Your task to perform on an android device: Search for acer predator on walmart.com, select the first entry, and add it to the cart. Image 0: 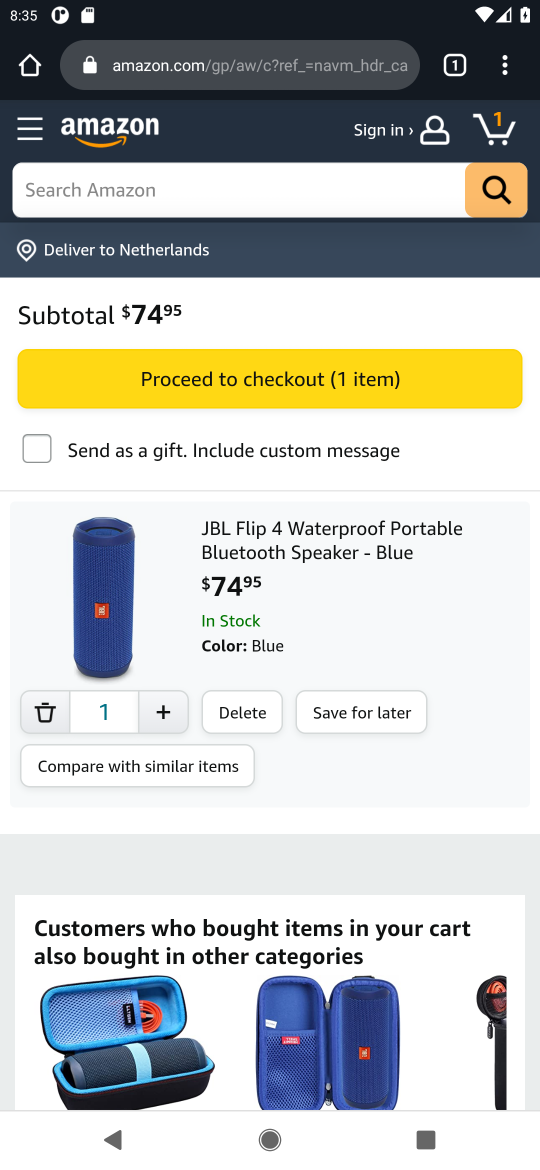
Step 0: click (220, 76)
Your task to perform on an android device: Search for acer predator on walmart.com, select the first entry, and add it to the cart. Image 1: 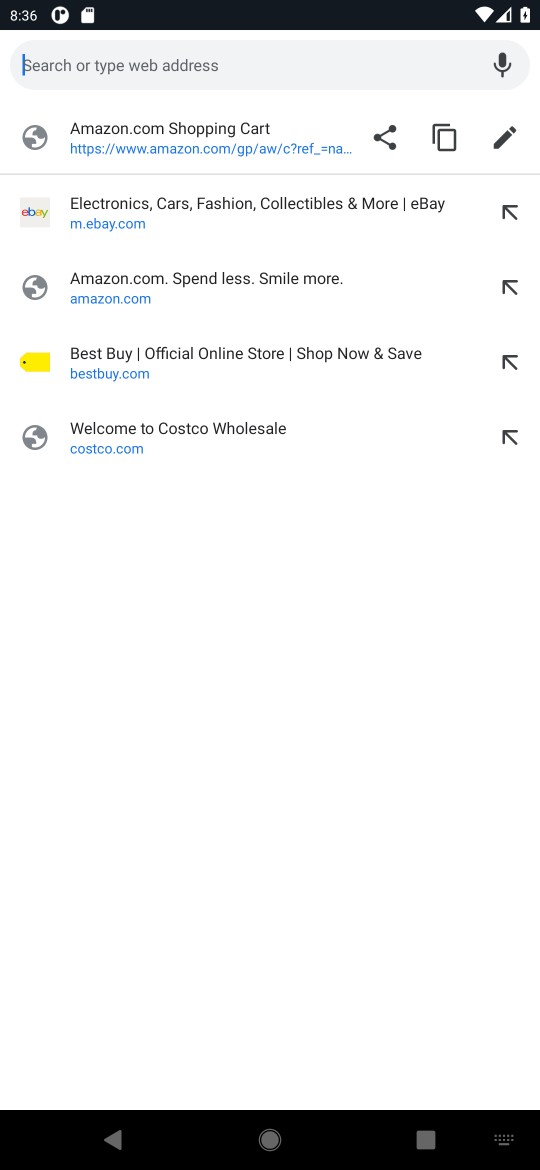
Step 1: type "walmart.com"
Your task to perform on an android device: Search for acer predator on walmart.com, select the first entry, and add it to the cart. Image 2: 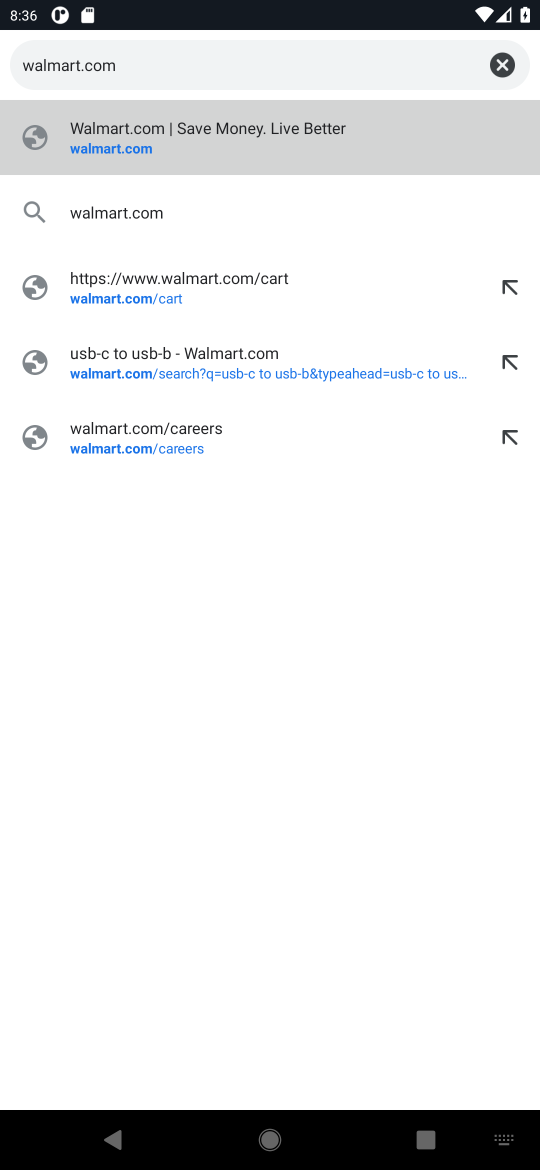
Step 2: click (119, 152)
Your task to perform on an android device: Search for acer predator on walmart.com, select the first entry, and add it to the cart. Image 3: 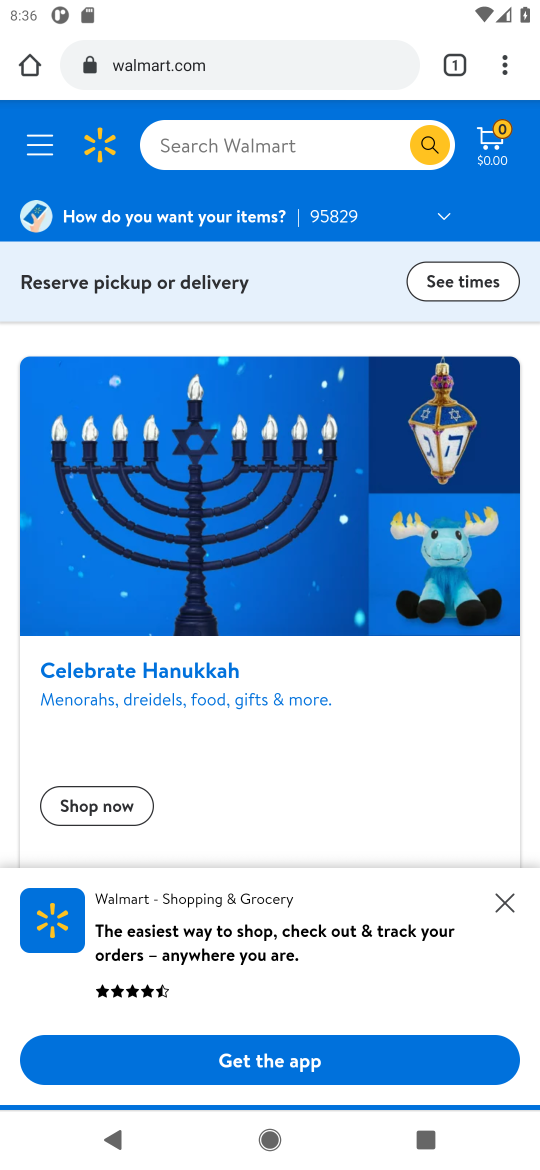
Step 3: click (197, 160)
Your task to perform on an android device: Search for acer predator on walmart.com, select the first entry, and add it to the cart. Image 4: 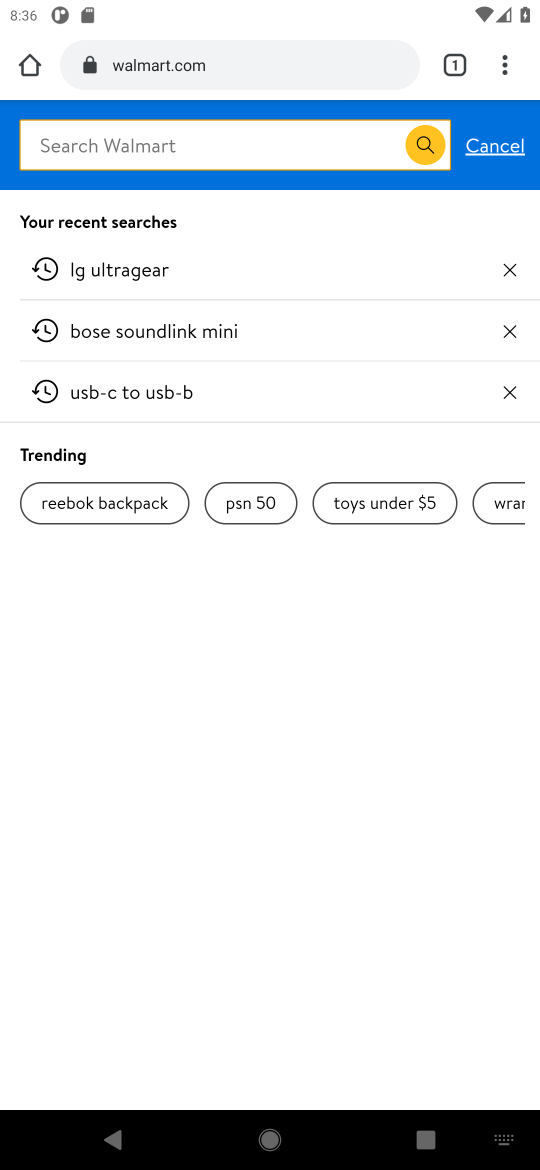
Step 4: type " acer predator"
Your task to perform on an android device: Search for acer predator on walmart.com, select the first entry, and add it to the cart. Image 5: 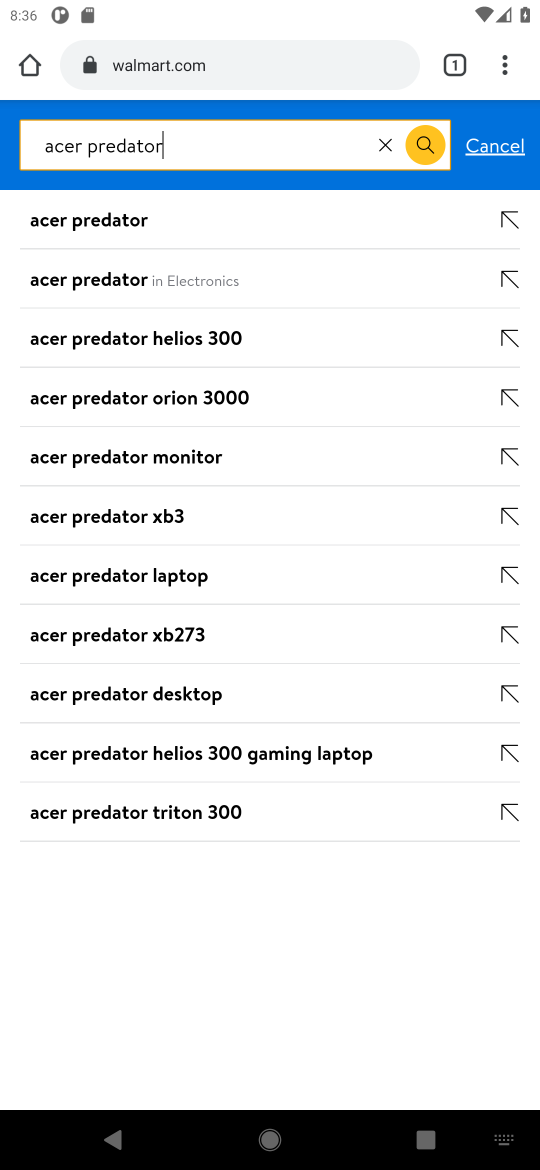
Step 5: click (95, 231)
Your task to perform on an android device: Search for acer predator on walmart.com, select the first entry, and add it to the cart. Image 6: 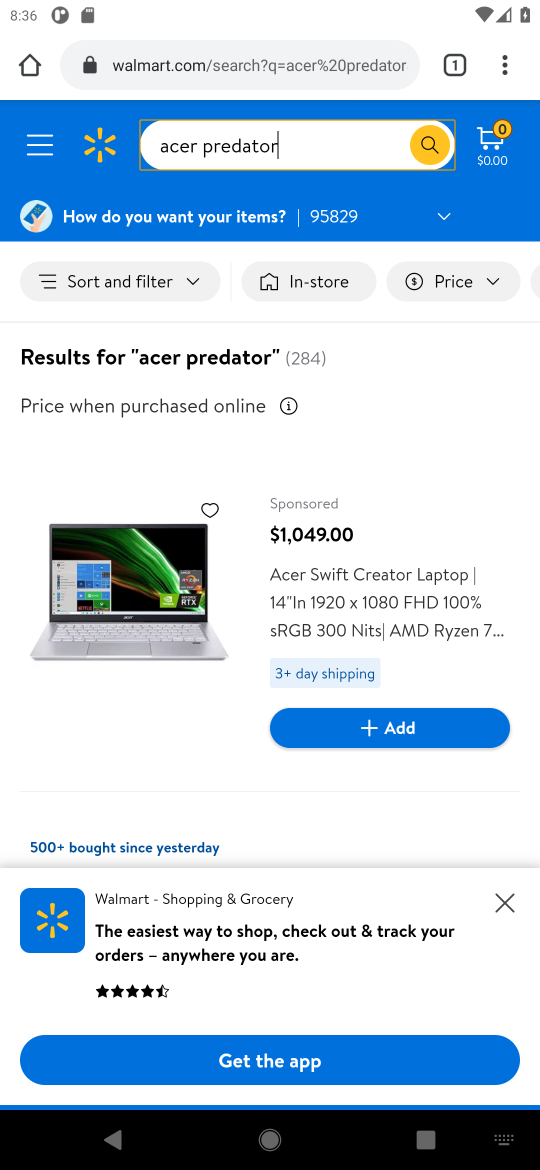
Step 6: task complete